Your task to perform on an android device: turn on translation in the chrome app Image 0: 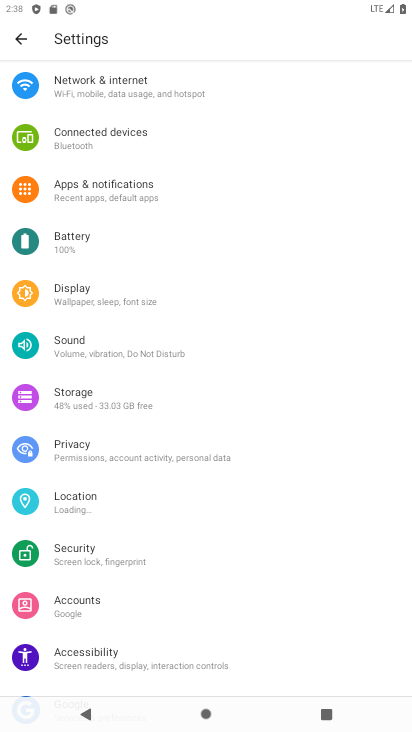
Step 0: press home button
Your task to perform on an android device: turn on translation in the chrome app Image 1: 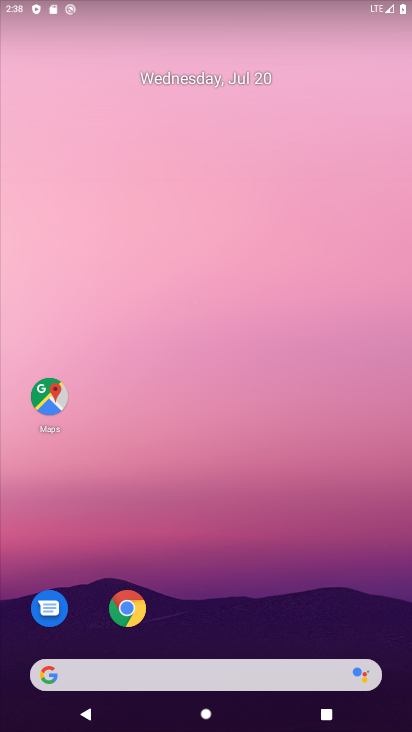
Step 1: click (137, 612)
Your task to perform on an android device: turn on translation in the chrome app Image 2: 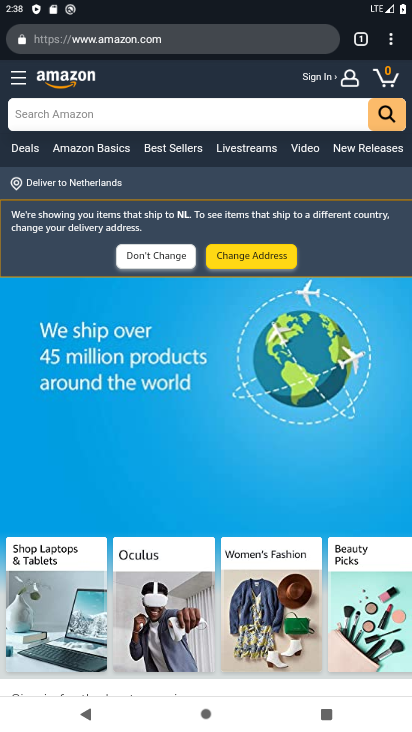
Step 2: click (394, 38)
Your task to perform on an android device: turn on translation in the chrome app Image 3: 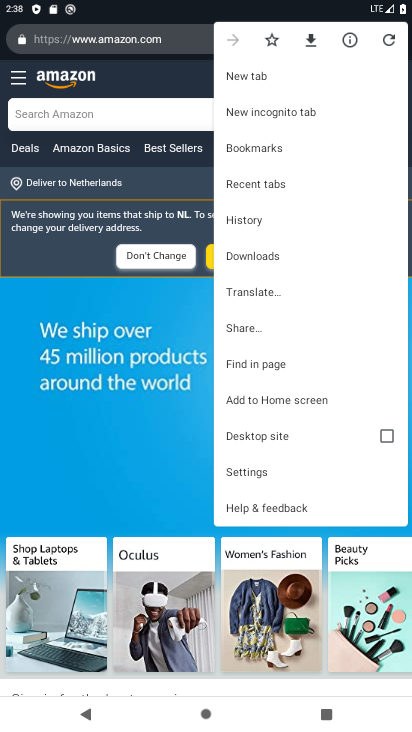
Step 3: click (257, 462)
Your task to perform on an android device: turn on translation in the chrome app Image 4: 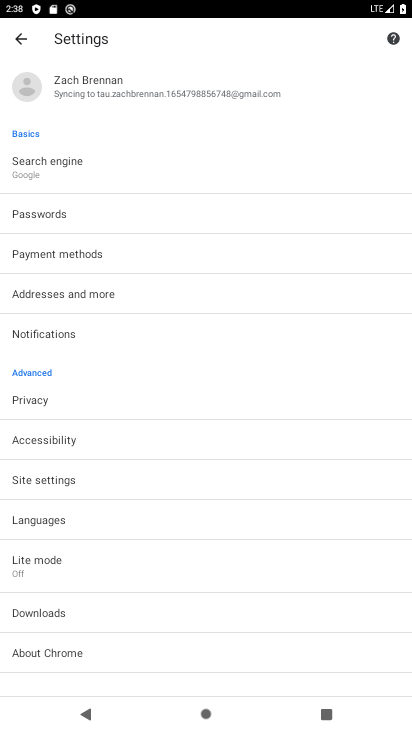
Step 4: click (84, 534)
Your task to perform on an android device: turn on translation in the chrome app Image 5: 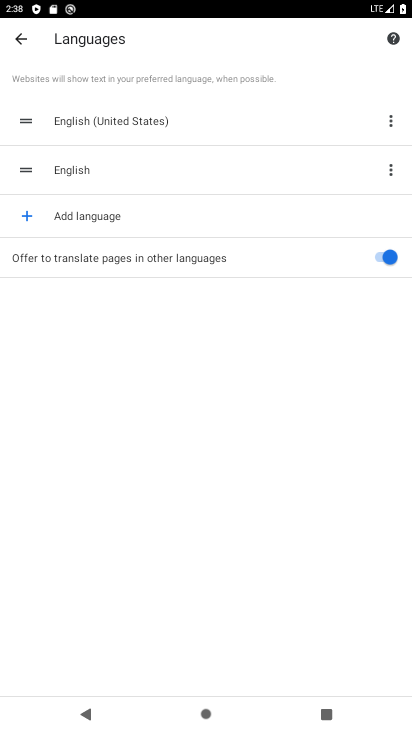
Step 5: task complete